Your task to perform on an android device: Open the phone app and click the voicemail tab. Image 0: 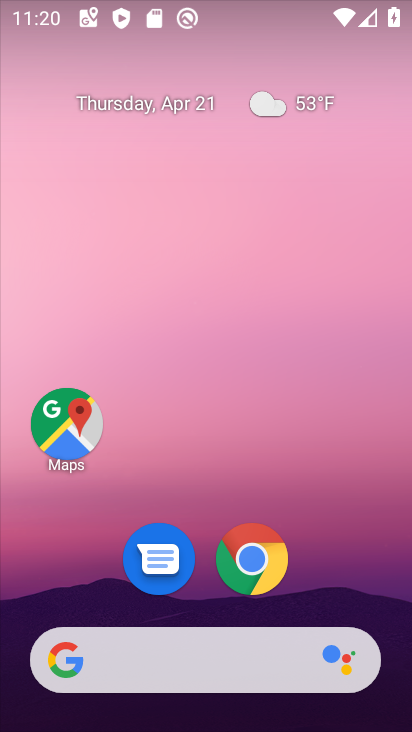
Step 0: drag from (356, 553) to (410, 529)
Your task to perform on an android device: Open the phone app and click the voicemail tab. Image 1: 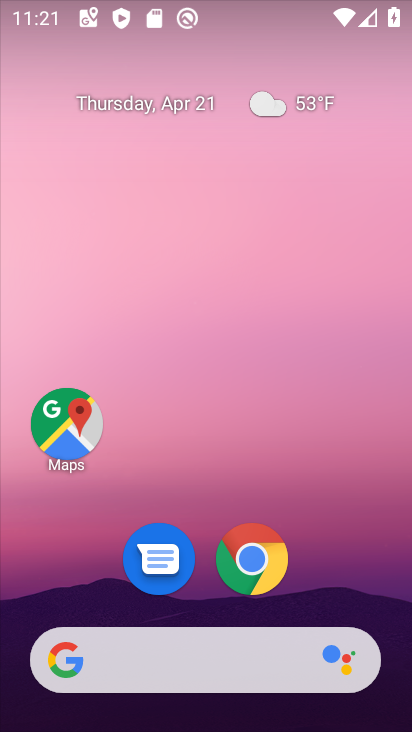
Step 1: drag from (388, 599) to (370, 10)
Your task to perform on an android device: Open the phone app and click the voicemail tab. Image 2: 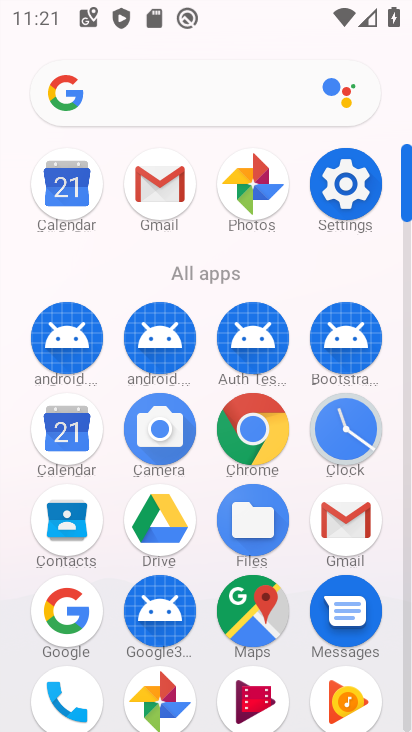
Step 2: drag from (410, 548) to (404, 452)
Your task to perform on an android device: Open the phone app and click the voicemail tab. Image 3: 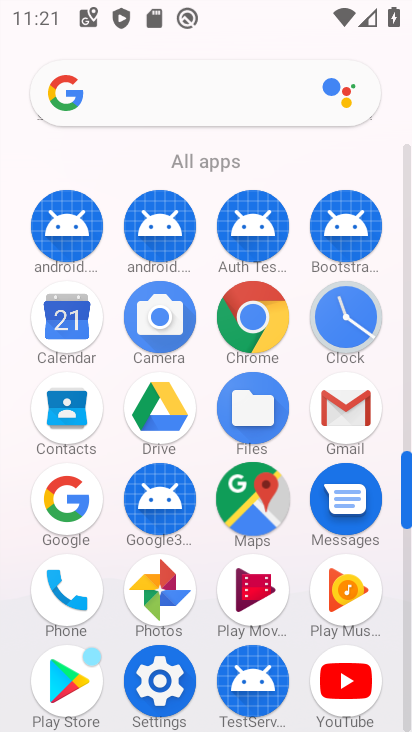
Step 3: click (34, 596)
Your task to perform on an android device: Open the phone app and click the voicemail tab. Image 4: 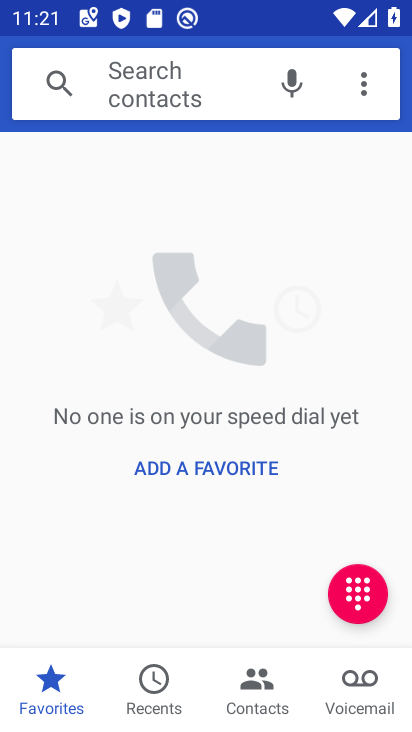
Step 4: click (357, 686)
Your task to perform on an android device: Open the phone app and click the voicemail tab. Image 5: 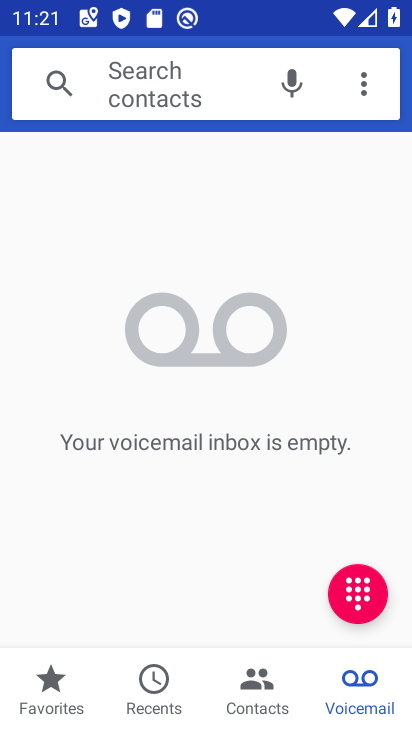
Step 5: task complete